Your task to perform on an android device: open device folders in google photos Image 0: 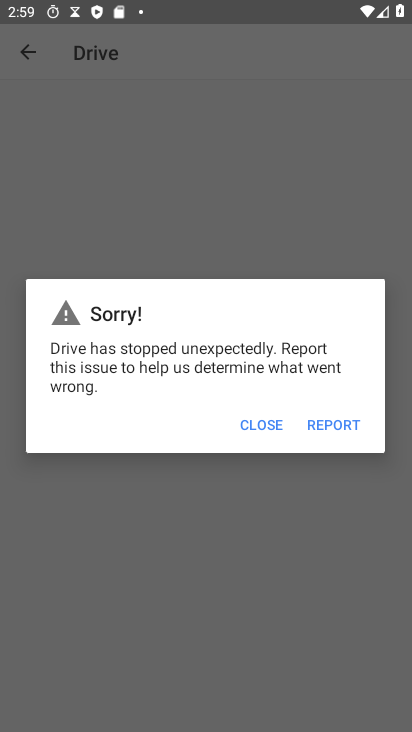
Step 0: press home button
Your task to perform on an android device: open device folders in google photos Image 1: 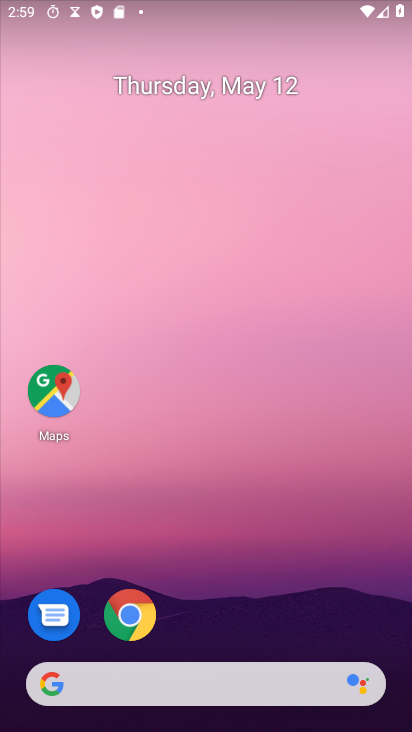
Step 1: drag from (156, 731) to (182, 89)
Your task to perform on an android device: open device folders in google photos Image 2: 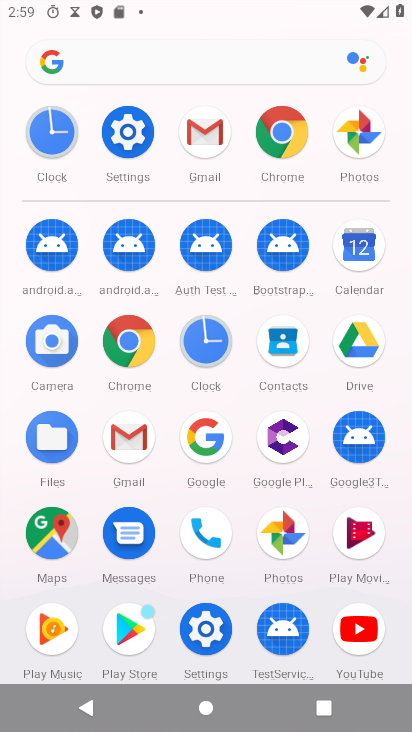
Step 2: click (308, 527)
Your task to perform on an android device: open device folders in google photos Image 3: 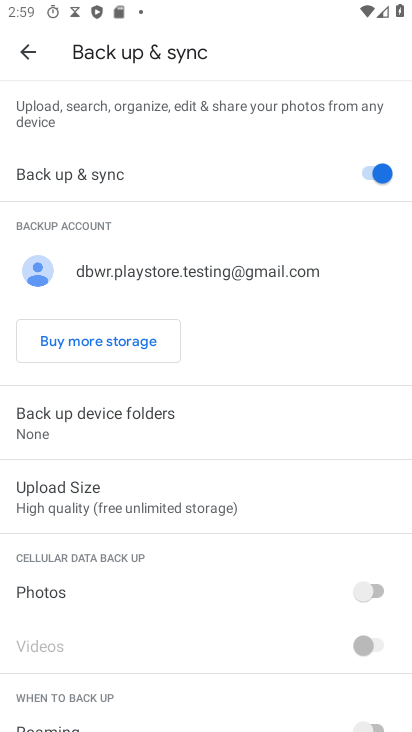
Step 3: press back button
Your task to perform on an android device: open device folders in google photos Image 4: 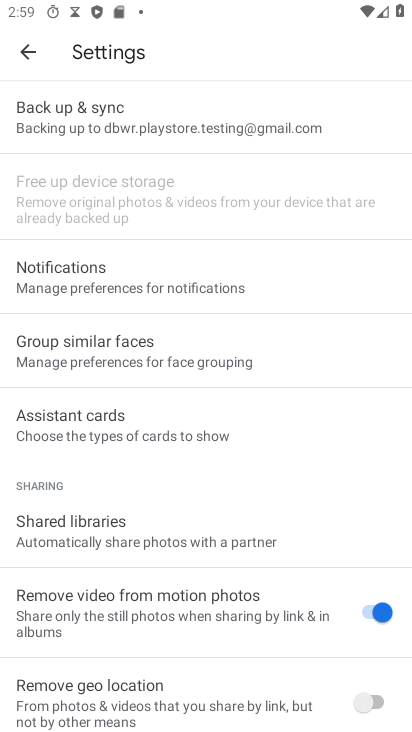
Step 4: press back button
Your task to perform on an android device: open device folders in google photos Image 5: 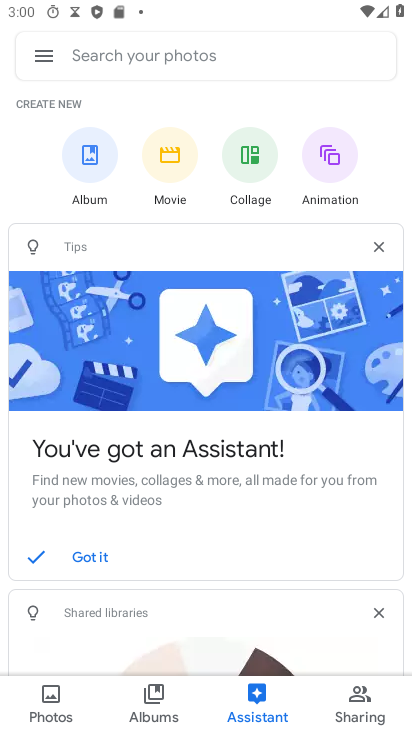
Step 5: click (48, 49)
Your task to perform on an android device: open device folders in google photos Image 6: 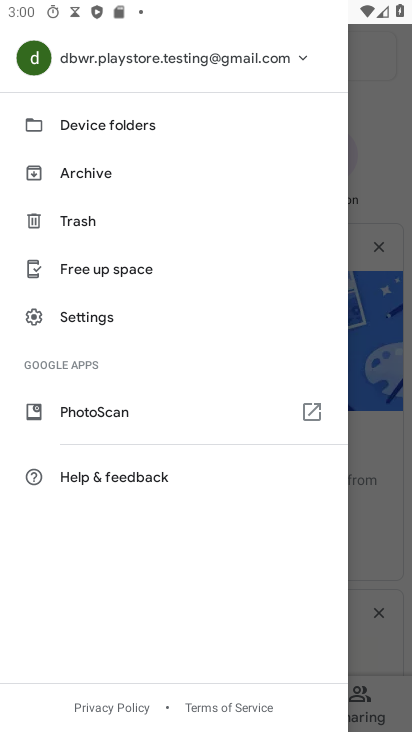
Step 6: click (45, 132)
Your task to perform on an android device: open device folders in google photos Image 7: 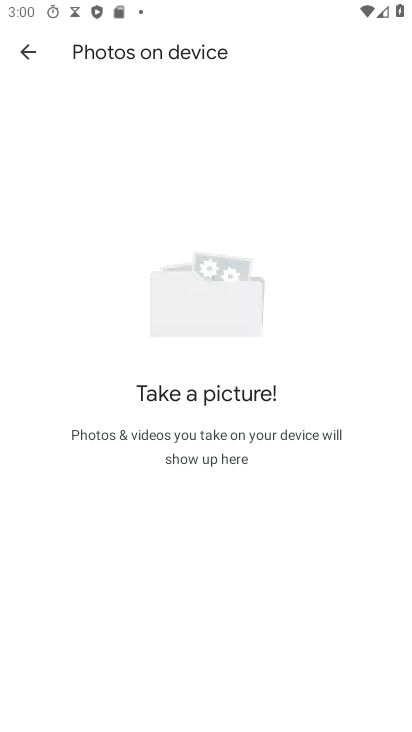
Step 7: task complete